Your task to perform on an android device: Open network settings Image 0: 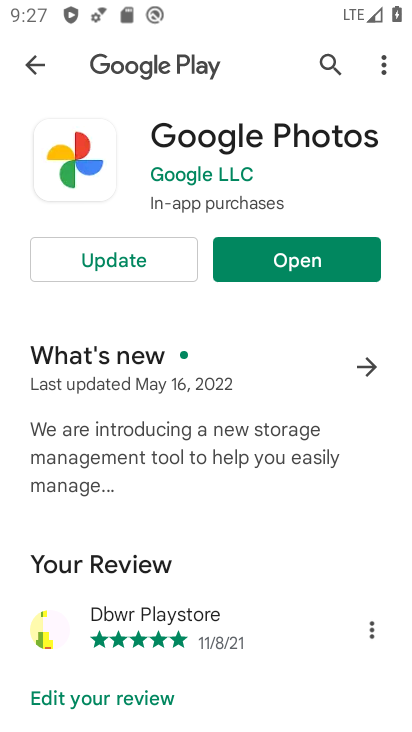
Step 0: press home button
Your task to perform on an android device: Open network settings Image 1: 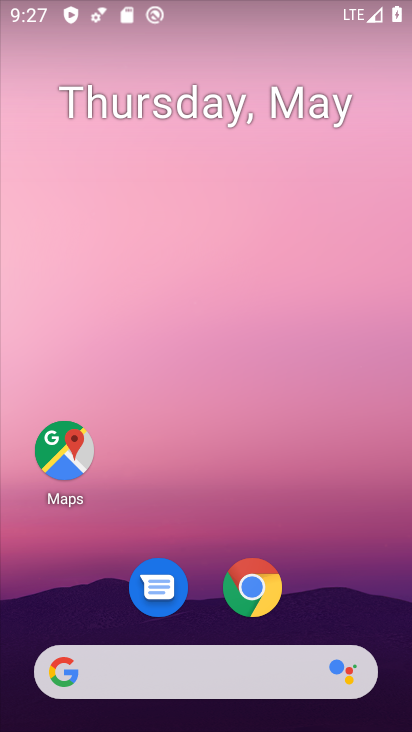
Step 1: drag from (324, 601) to (323, 30)
Your task to perform on an android device: Open network settings Image 2: 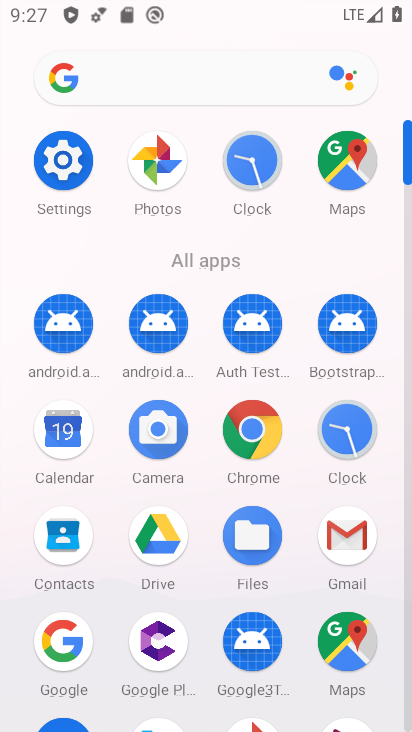
Step 2: click (52, 170)
Your task to perform on an android device: Open network settings Image 3: 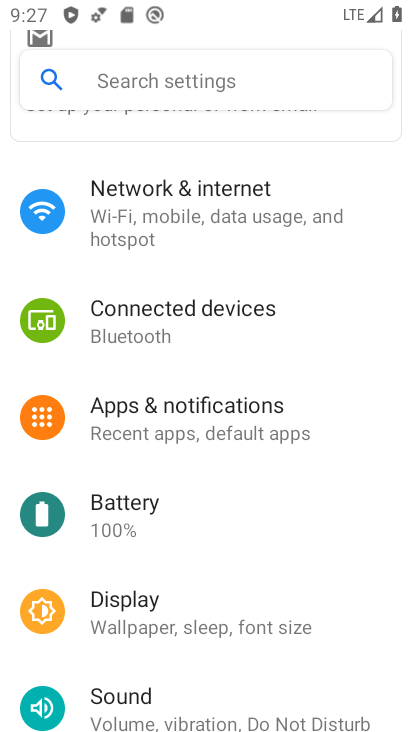
Step 3: click (119, 223)
Your task to perform on an android device: Open network settings Image 4: 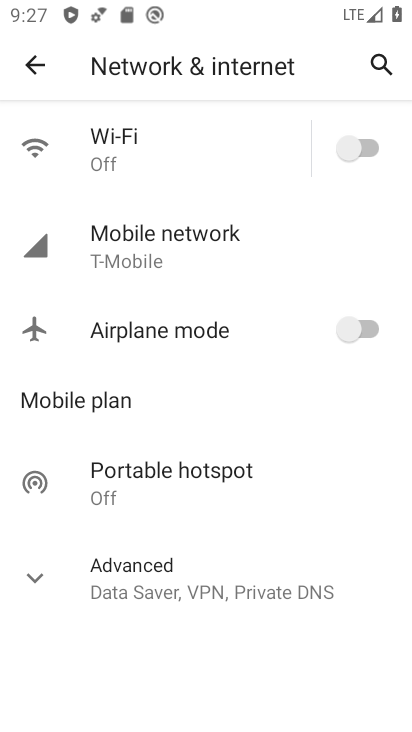
Step 4: click (133, 247)
Your task to perform on an android device: Open network settings Image 5: 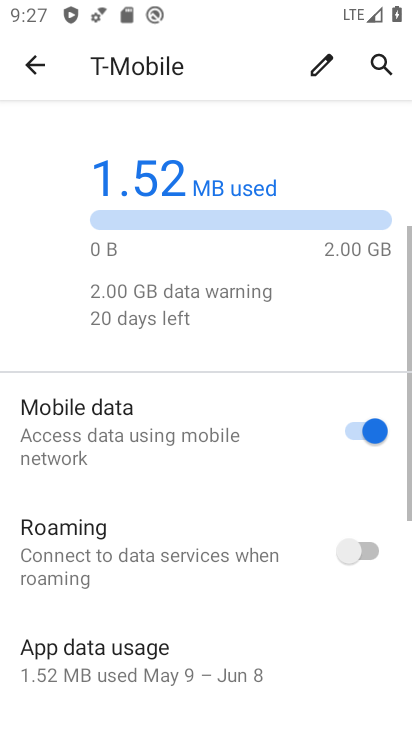
Step 5: drag from (166, 530) to (171, 96)
Your task to perform on an android device: Open network settings Image 6: 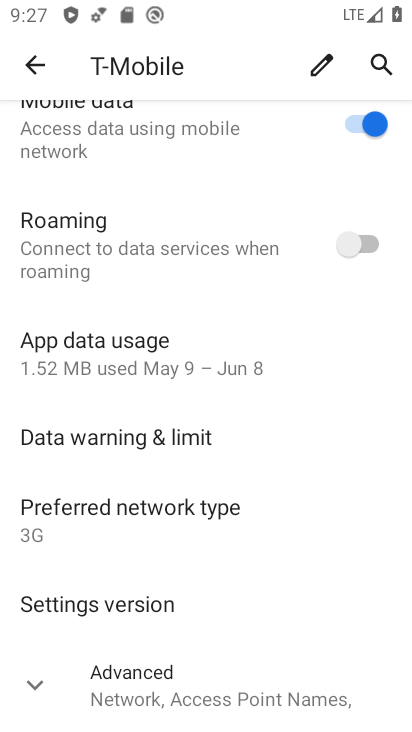
Step 6: click (36, 691)
Your task to perform on an android device: Open network settings Image 7: 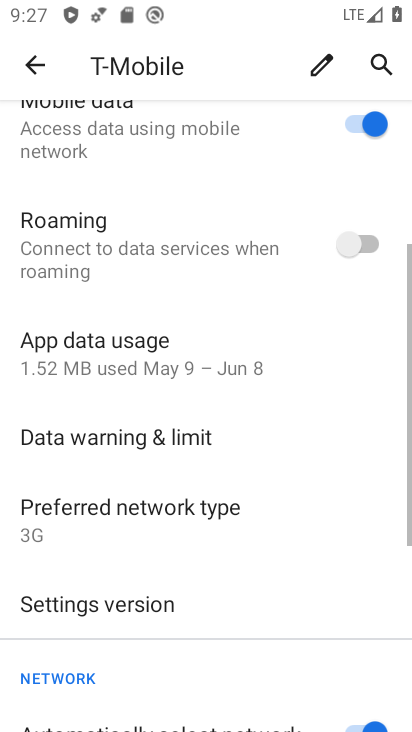
Step 7: task complete